Your task to perform on an android device: Open battery settings Image 0: 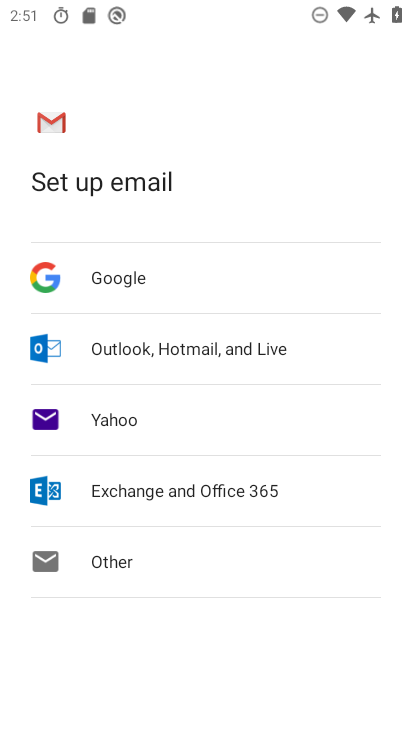
Step 0: press home button
Your task to perform on an android device: Open battery settings Image 1: 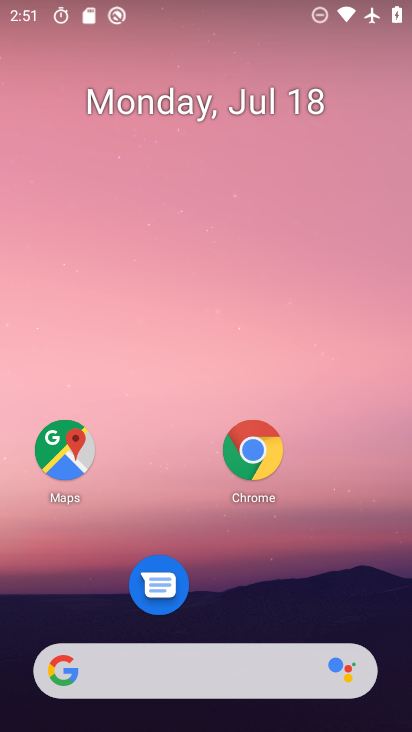
Step 1: drag from (173, 659) to (325, 72)
Your task to perform on an android device: Open battery settings Image 2: 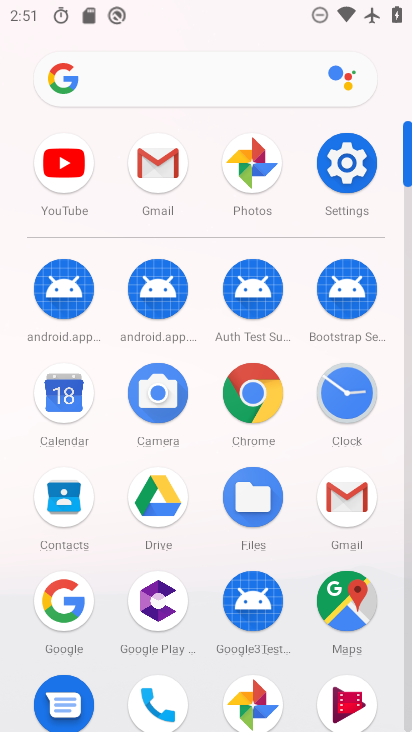
Step 2: click (344, 161)
Your task to perform on an android device: Open battery settings Image 3: 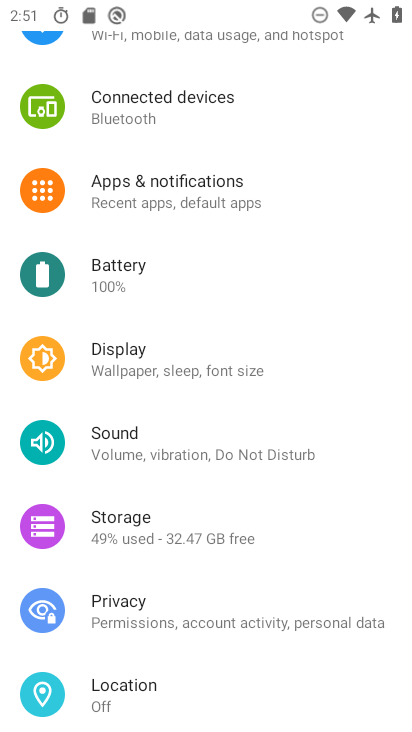
Step 3: click (129, 276)
Your task to perform on an android device: Open battery settings Image 4: 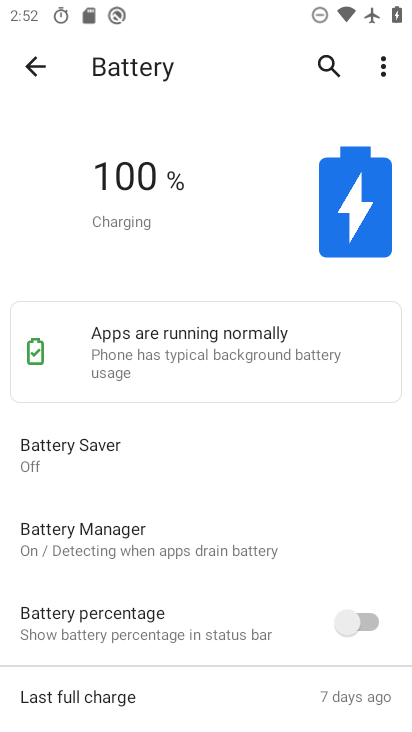
Step 4: task complete